Your task to perform on an android device: Find coffee shops on Maps Image 0: 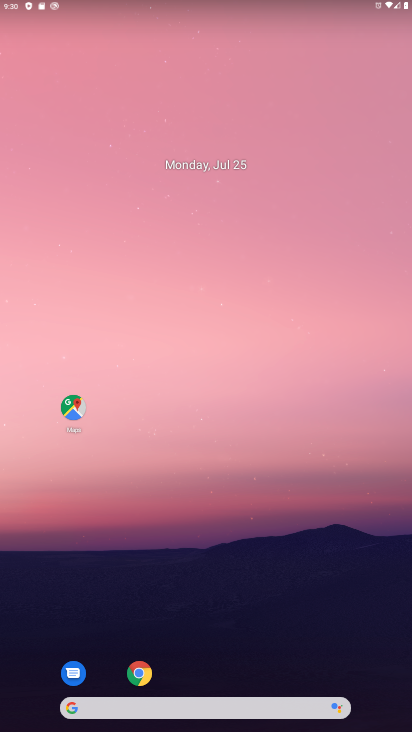
Step 0: drag from (254, 686) to (240, 133)
Your task to perform on an android device: Find coffee shops on Maps Image 1: 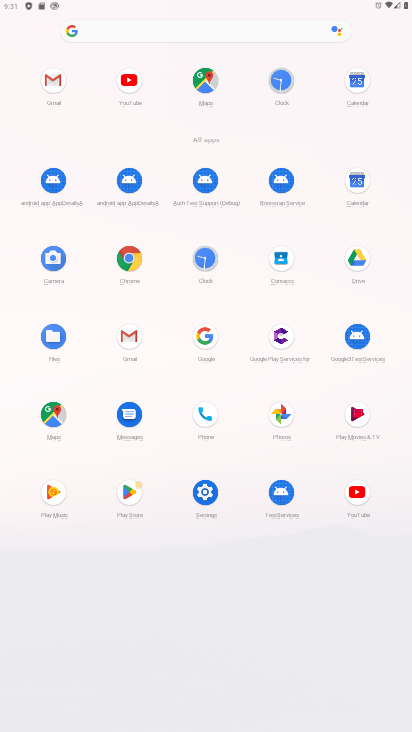
Step 1: click (55, 400)
Your task to perform on an android device: Find coffee shops on Maps Image 2: 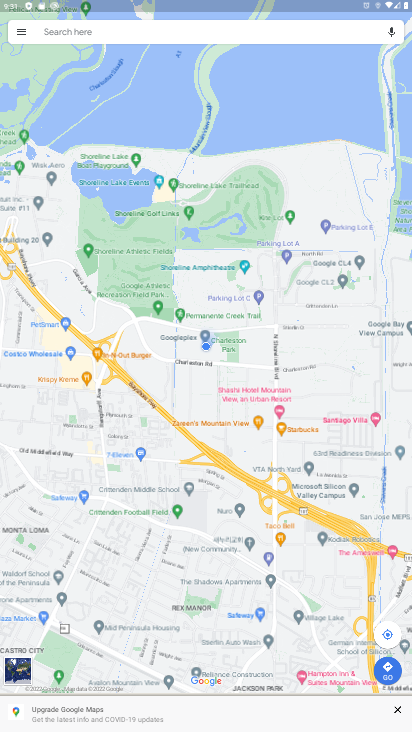
Step 2: click (101, 34)
Your task to perform on an android device: Find coffee shops on Maps Image 3: 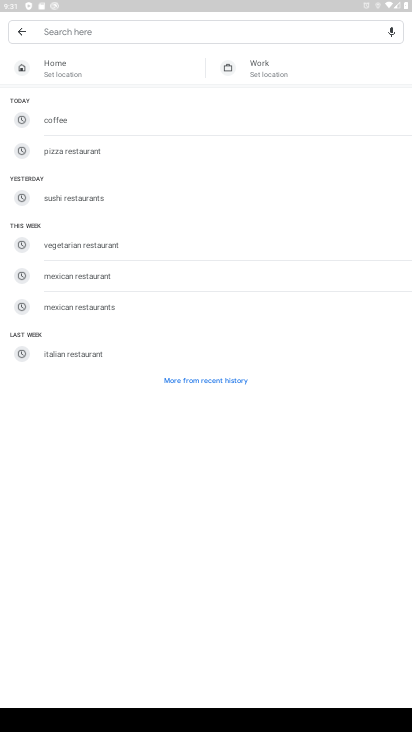
Step 3: click (69, 119)
Your task to perform on an android device: Find coffee shops on Maps Image 4: 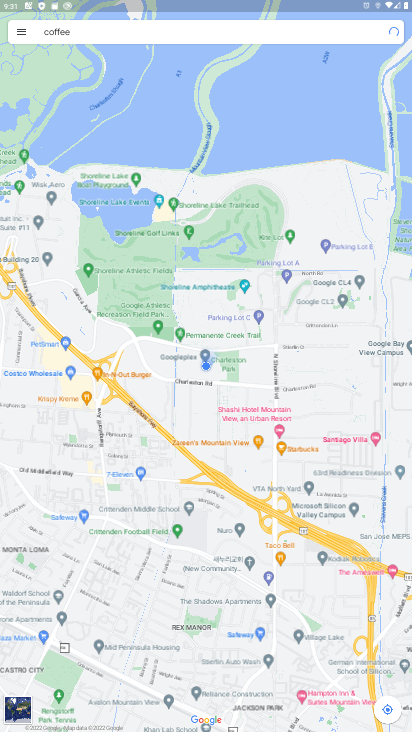
Step 4: task complete